Your task to perform on an android device: install app "Adobe Acrobat Reader" Image 0: 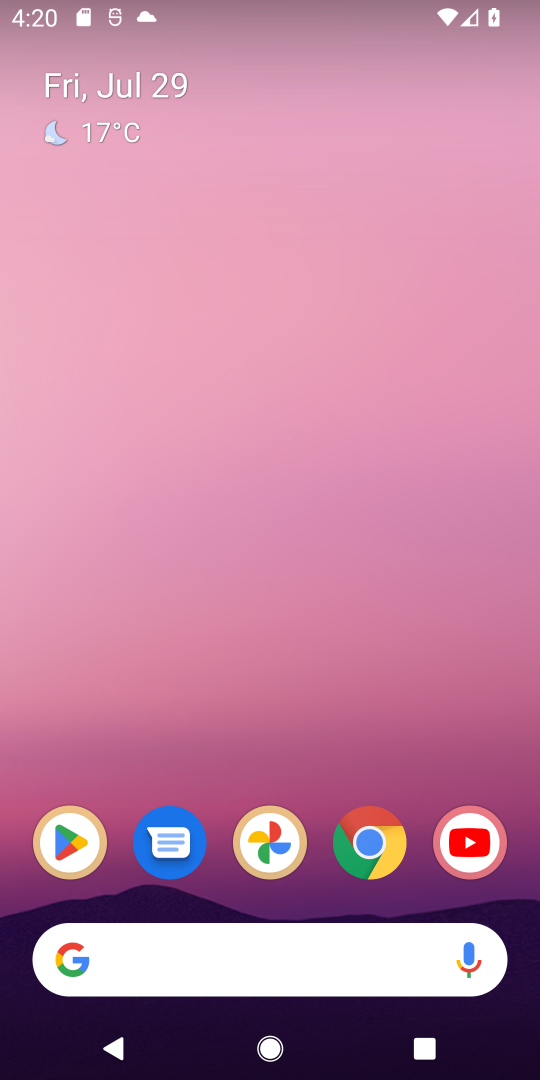
Step 0: drag from (274, 680) to (304, 32)
Your task to perform on an android device: install app "Adobe Acrobat Reader" Image 1: 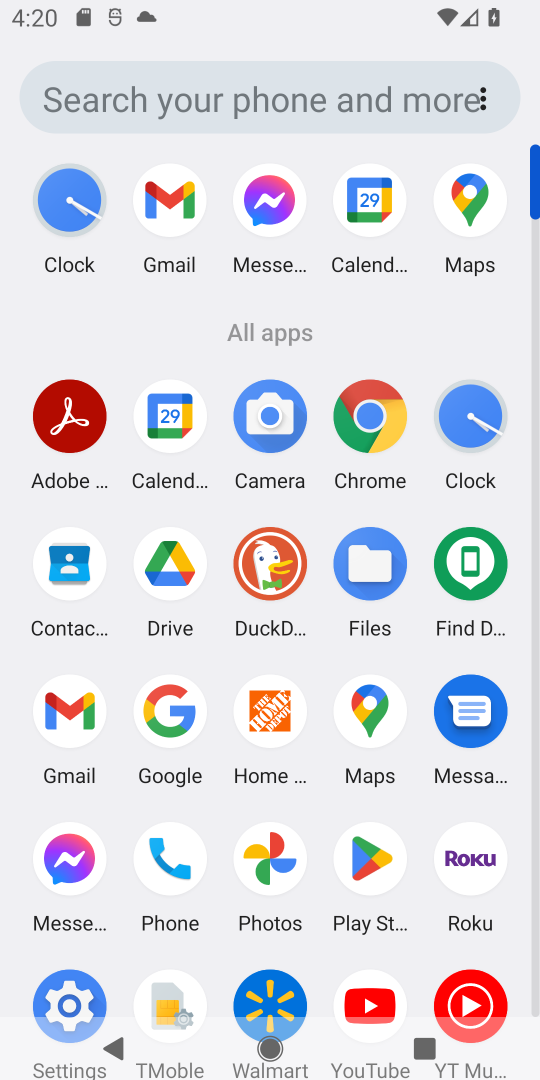
Step 1: click (357, 865)
Your task to perform on an android device: install app "Adobe Acrobat Reader" Image 2: 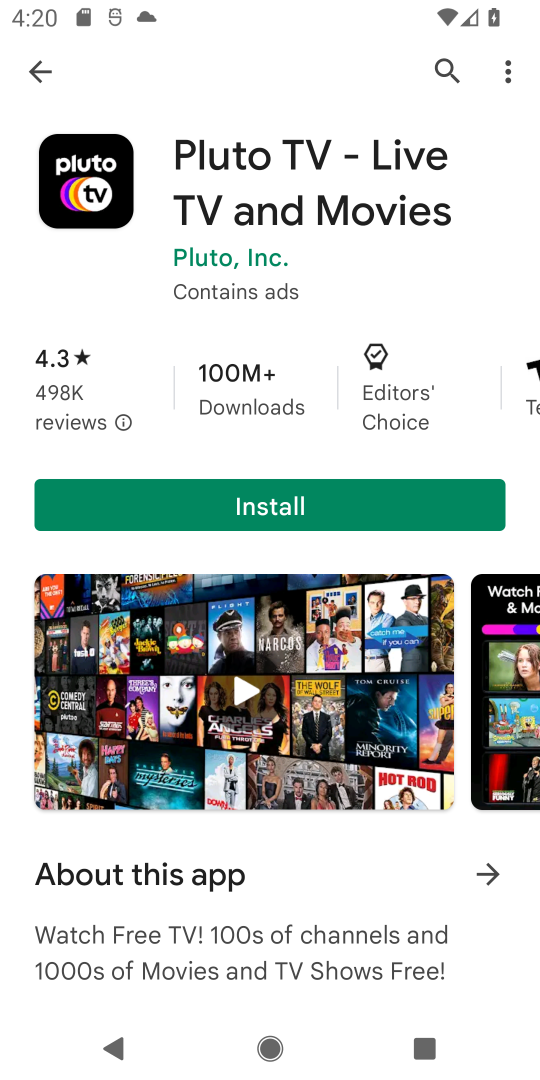
Step 2: click (444, 76)
Your task to perform on an android device: install app "Adobe Acrobat Reader" Image 3: 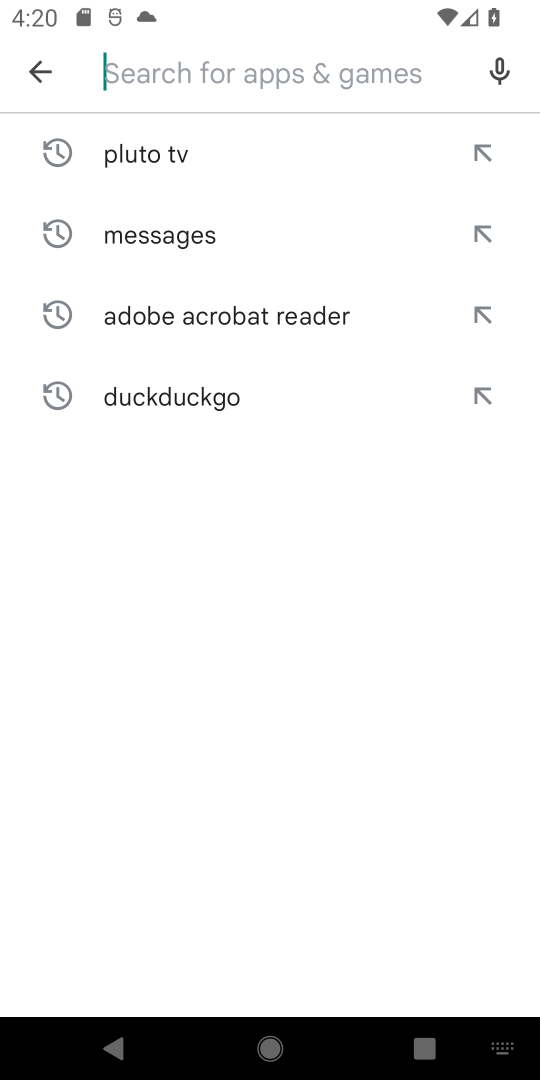
Step 3: click (203, 87)
Your task to perform on an android device: install app "Adobe Acrobat Reader" Image 4: 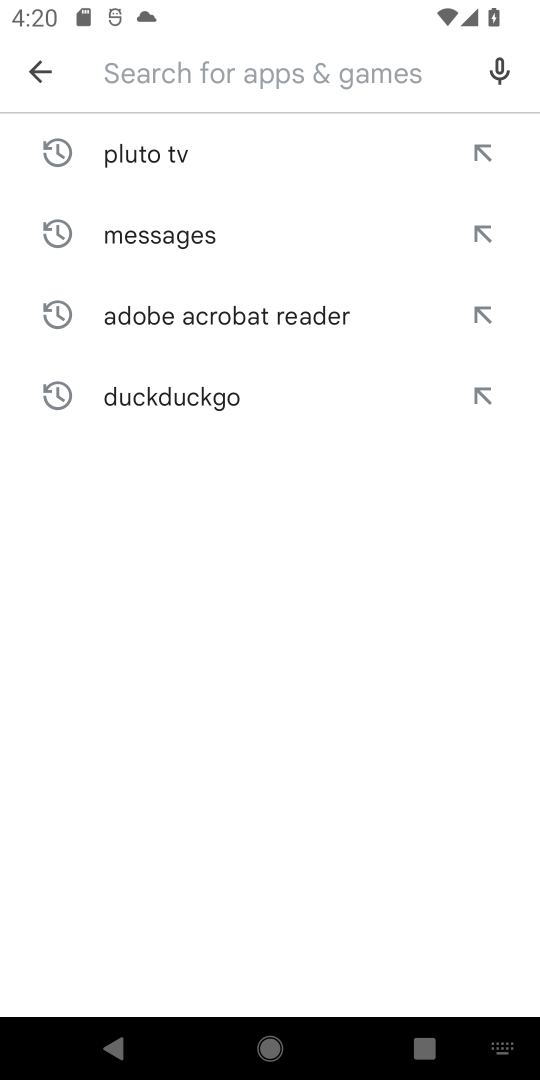
Step 4: click (174, 86)
Your task to perform on an android device: install app "Adobe Acrobat Reader" Image 5: 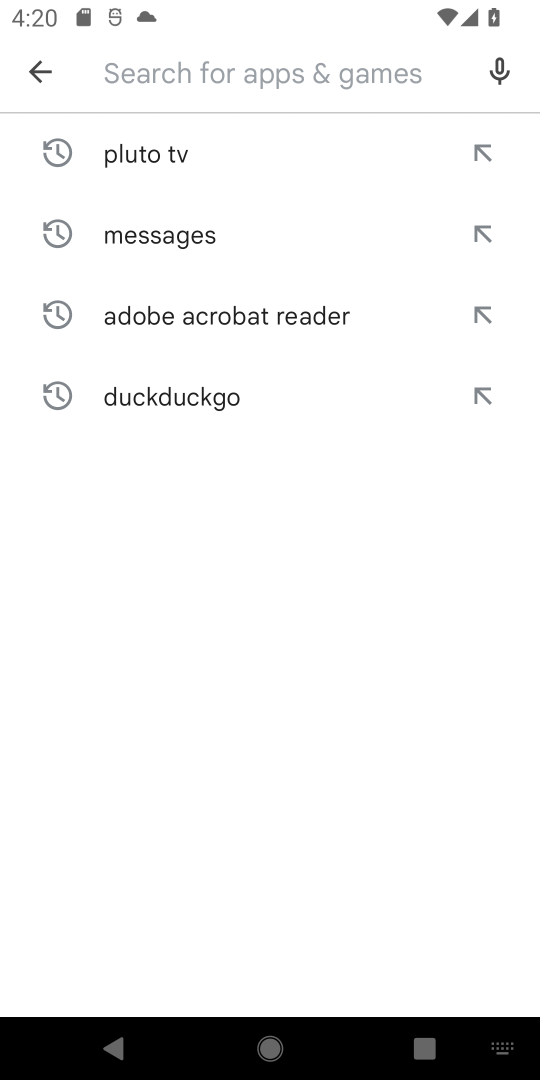
Step 5: click (236, 310)
Your task to perform on an android device: install app "Adobe Acrobat Reader" Image 6: 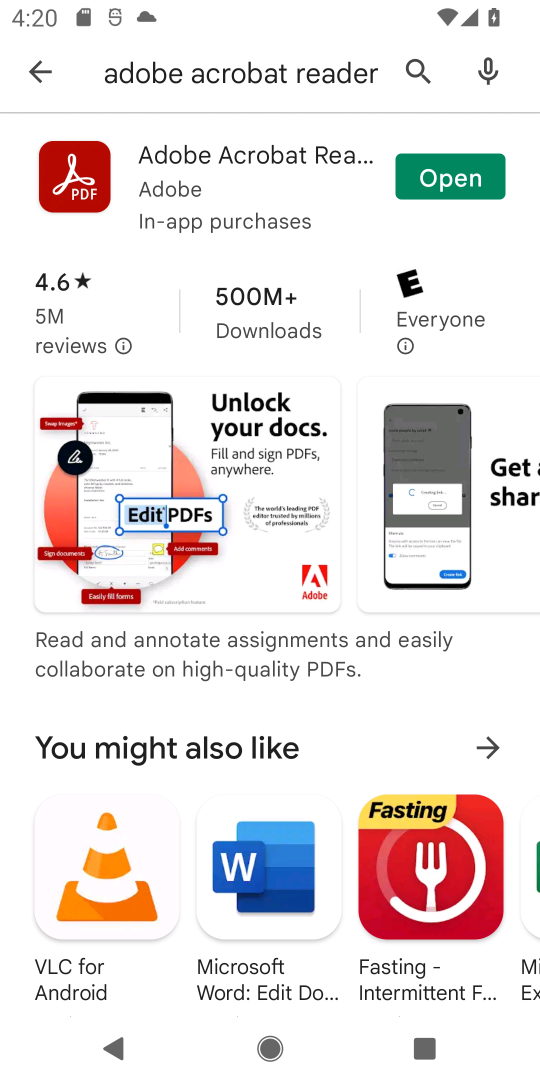
Step 6: click (416, 178)
Your task to perform on an android device: install app "Adobe Acrobat Reader" Image 7: 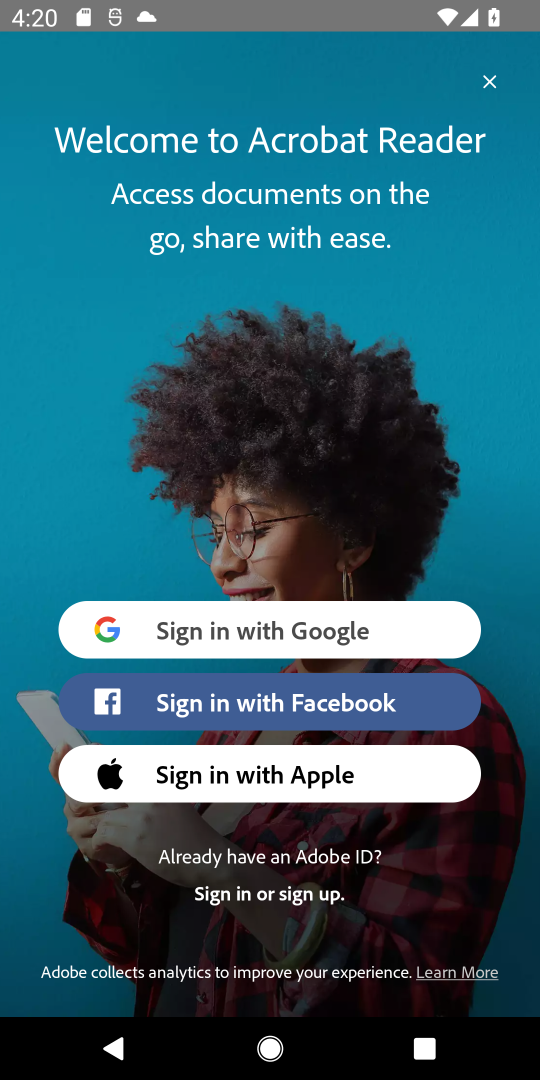
Step 7: task complete